Your task to perform on an android device: See recent photos Image 0: 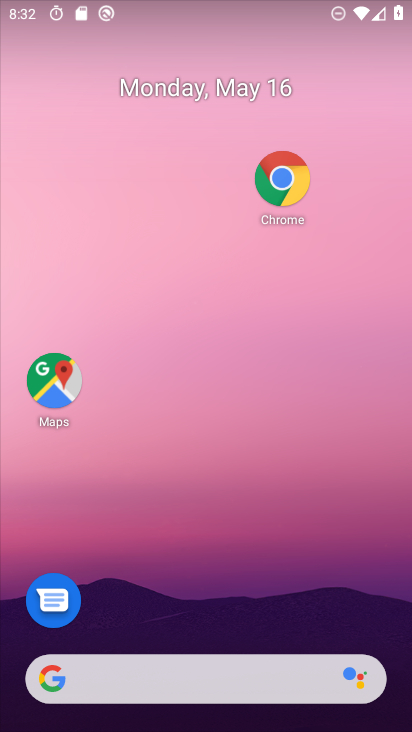
Step 0: drag from (147, 682) to (276, 232)
Your task to perform on an android device: See recent photos Image 1: 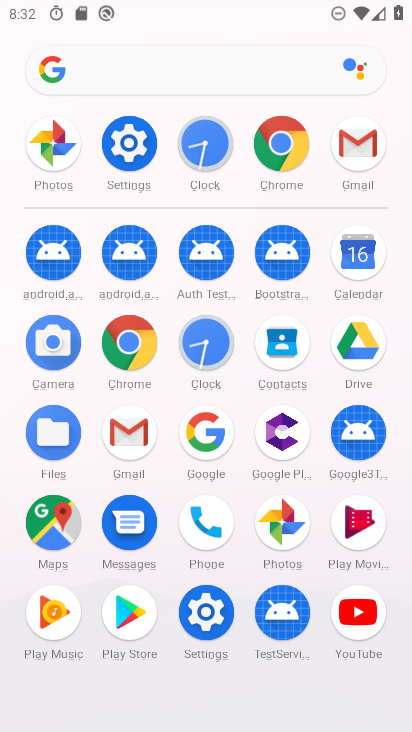
Step 1: click (281, 526)
Your task to perform on an android device: See recent photos Image 2: 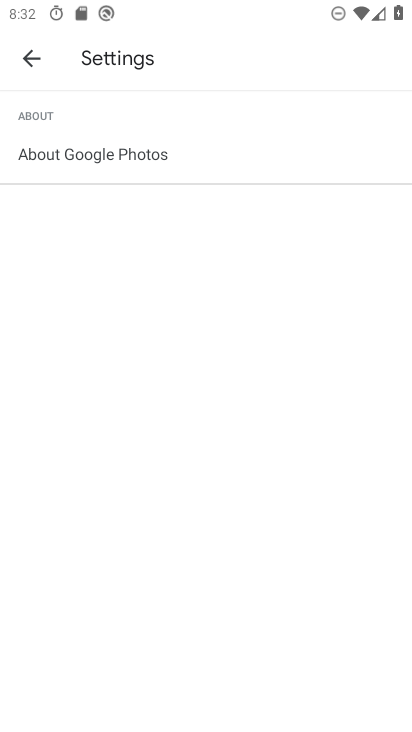
Step 2: click (34, 56)
Your task to perform on an android device: See recent photos Image 3: 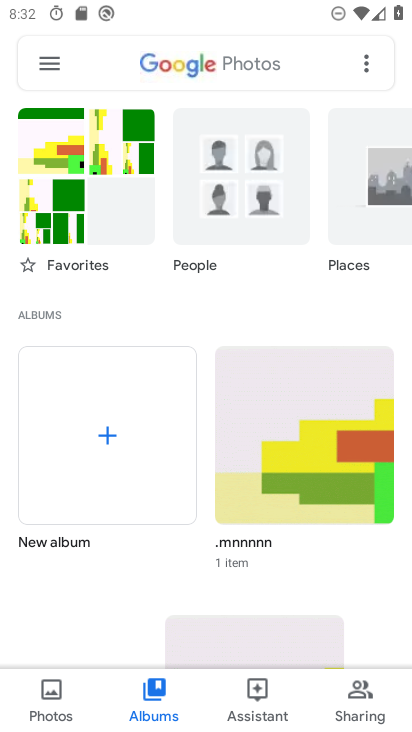
Step 3: click (163, 708)
Your task to perform on an android device: See recent photos Image 4: 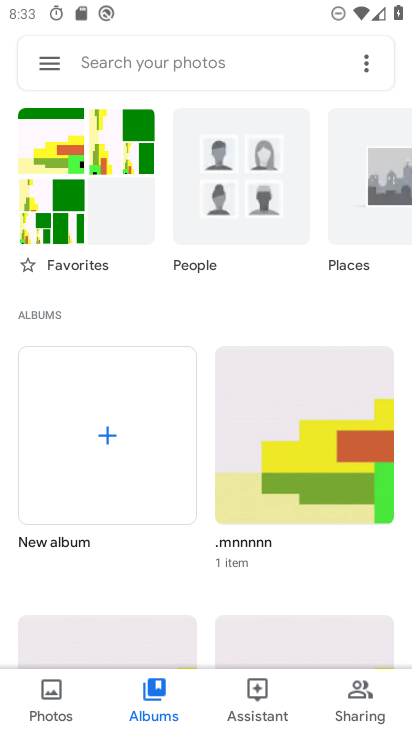
Step 4: task complete